Your task to perform on an android device: What is the news today? Image 0: 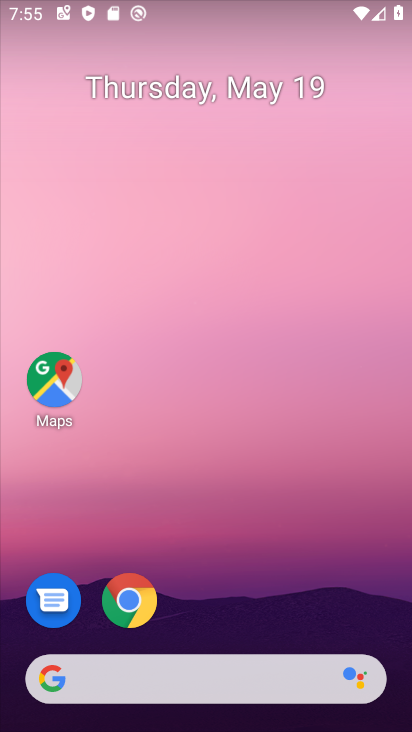
Step 0: click (116, 679)
Your task to perform on an android device: What is the news today? Image 1: 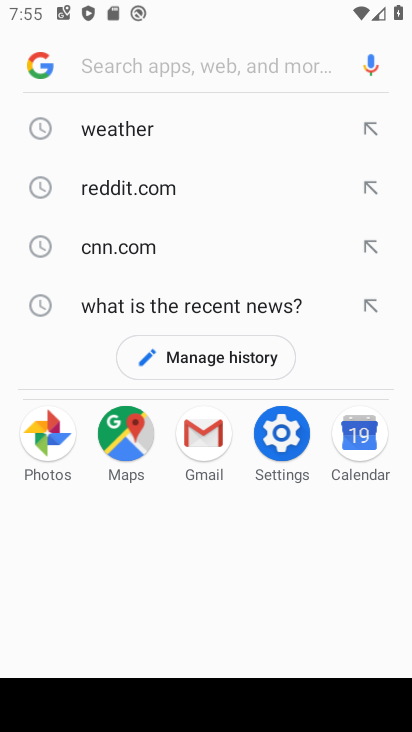
Step 1: click (115, 68)
Your task to perform on an android device: What is the news today? Image 2: 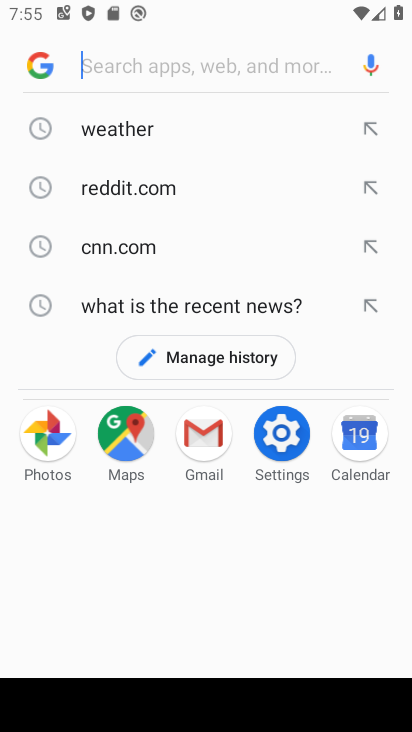
Step 2: type "neews today"
Your task to perform on an android device: What is the news today? Image 3: 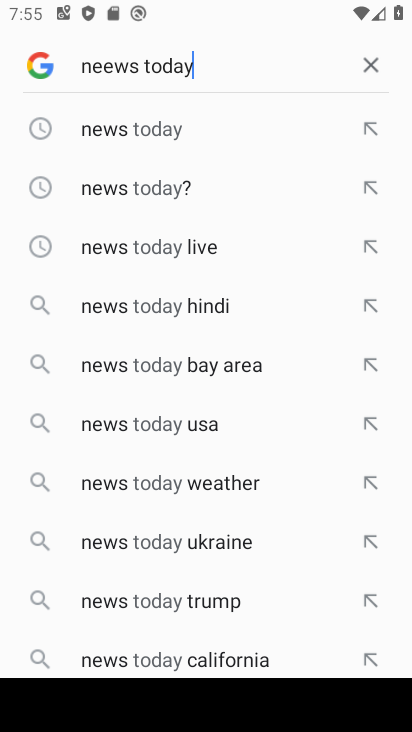
Step 3: click (116, 129)
Your task to perform on an android device: What is the news today? Image 4: 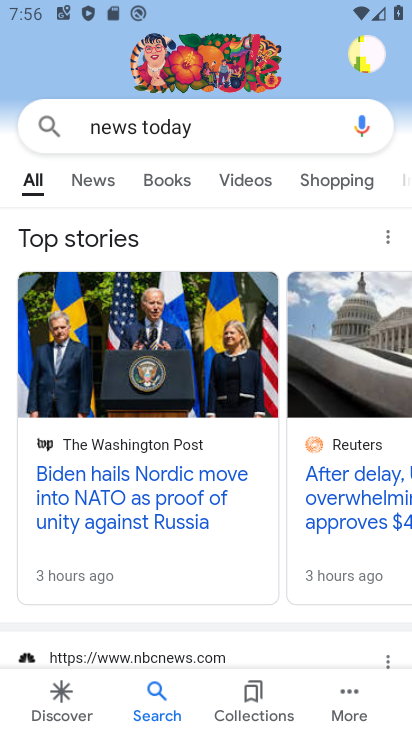
Step 4: click (102, 462)
Your task to perform on an android device: What is the news today? Image 5: 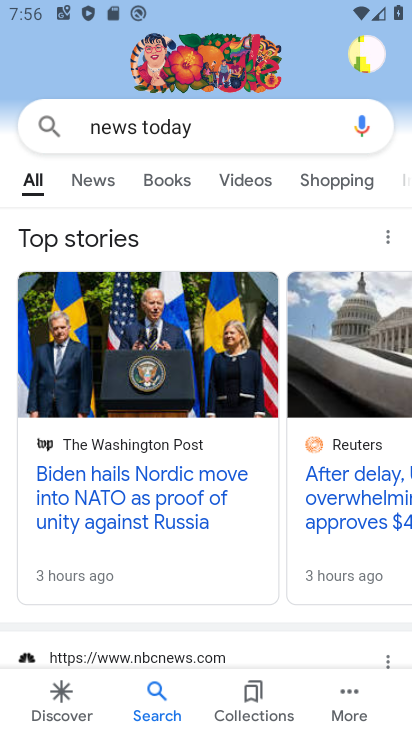
Step 5: click (118, 404)
Your task to perform on an android device: What is the news today? Image 6: 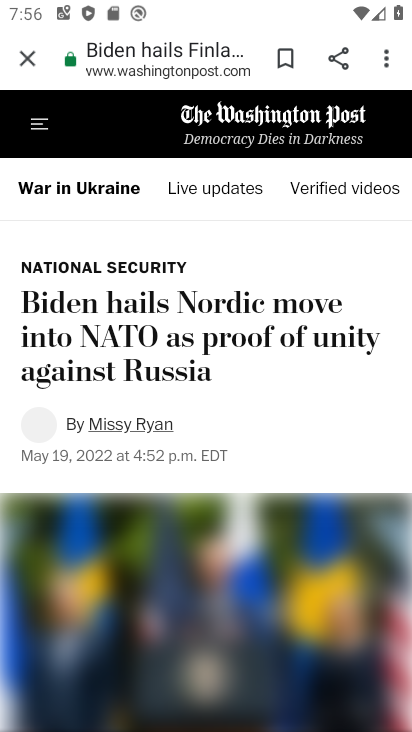
Step 6: task complete